Your task to perform on an android device: move a message to another label in the gmail app Image 0: 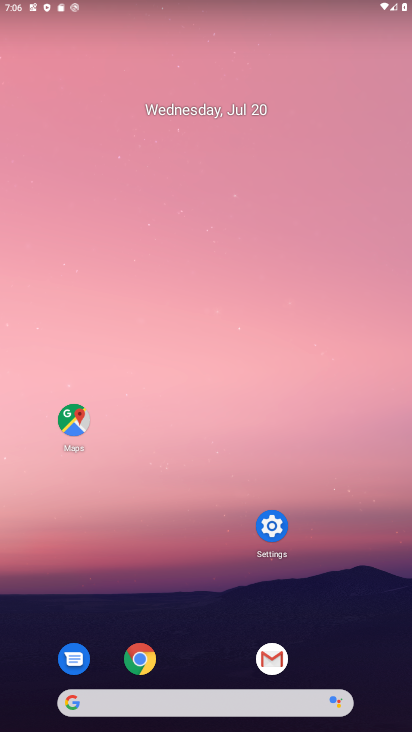
Step 0: click (284, 649)
Your task to perform on an android device: move a message to another label in the gmail app Image 1: 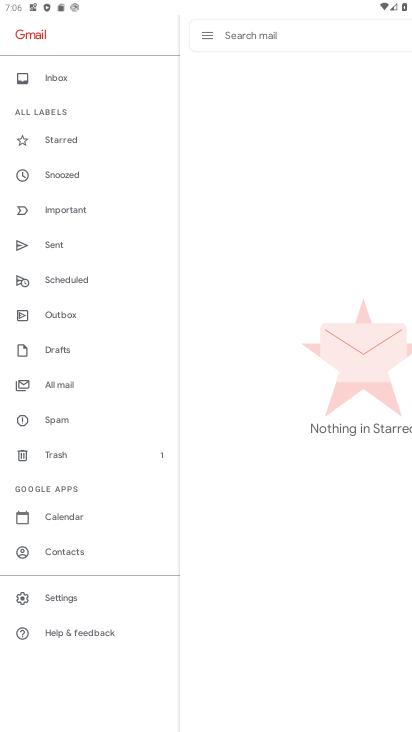
Step 1: click (77, 386)
Your task to perform on an android device: move a message to another label in the gmail app Image 2: 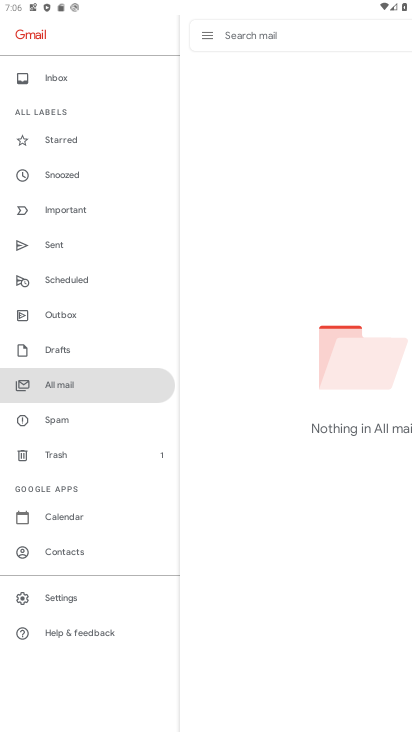
Step 2: click (65, 600)
Your task to perform on an android device: move a message to another label in the gmail app Image 3: 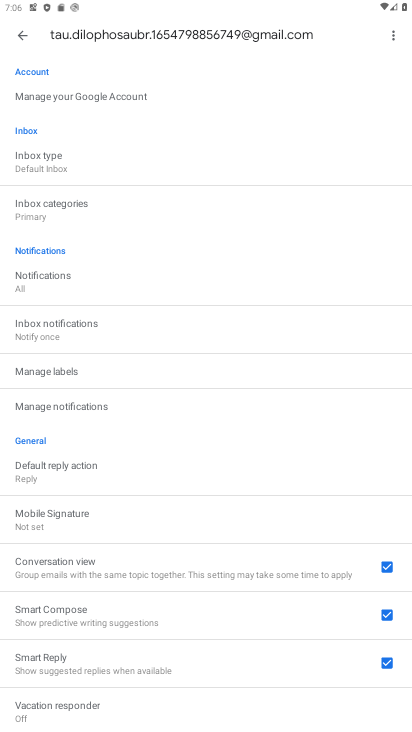
Step 3: click (90, 379)
Your task to perform on an android device: move a message to another label in the gmail app Image 4: 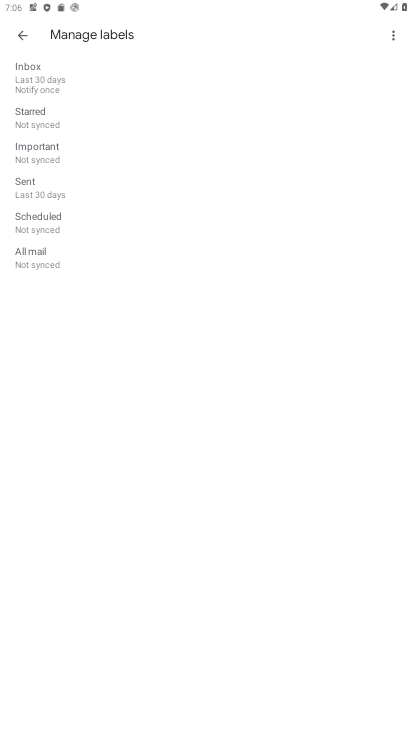
Step 4: click (45, 222)
Your task to perform on an android device: move a message to another label in the gmail app Image 5: 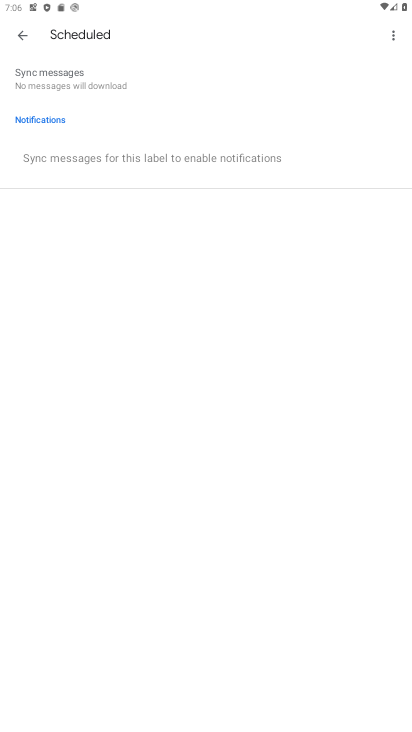
Step 5: task complete